Your task to perform on an android device: change alarm snooze length Image 0: 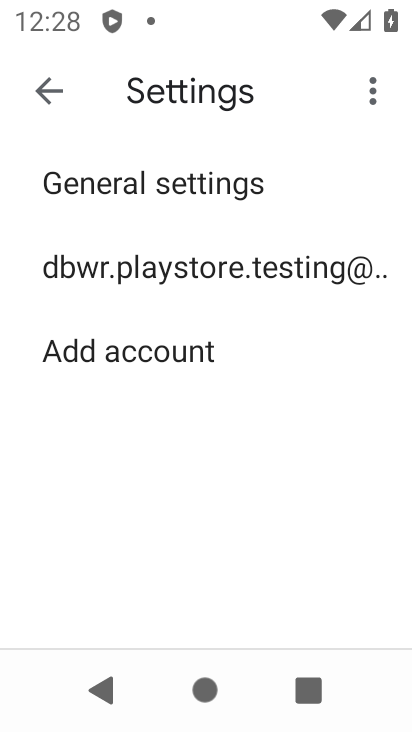
Step 0: press home button
Your task to perform on an android device: change alarm snooze length Image 1: 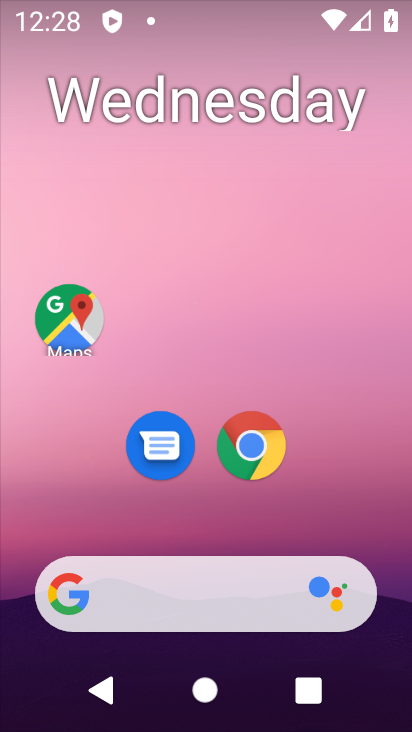
Step 1: drag from (241, 590) to (258, 183)
Your task to perform on an android device: change alarm snooze length Image 2: 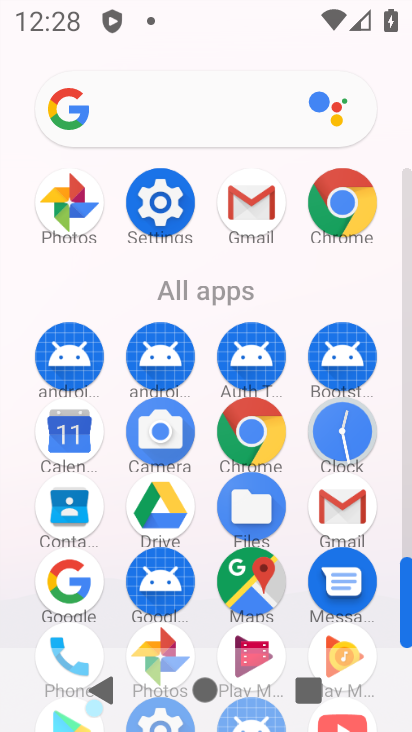
Step 2: click (336, 444)
Your task to perform on an android device: change alarm snooze length Image 3: 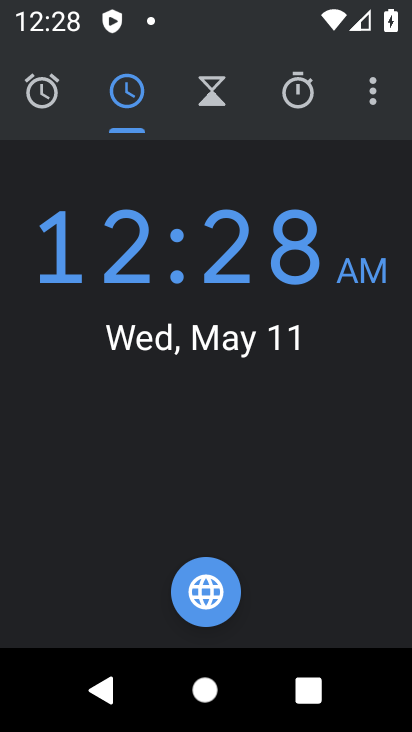
Step 3: click (387, 114)
Your task to perform on an android device: change alarm snooze length Image 4: 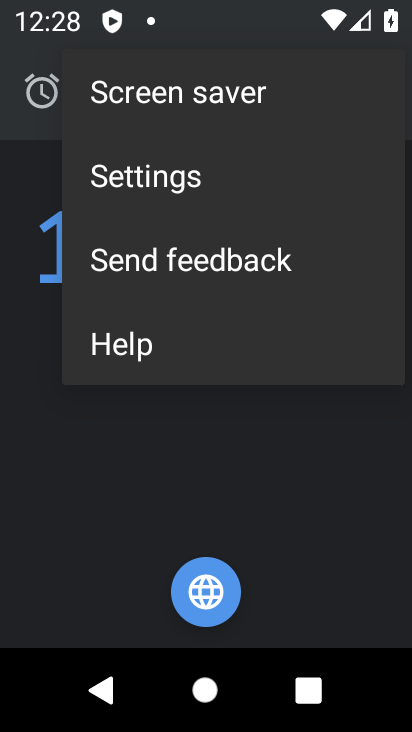
Step 4: click (160, 174)
Your task to perform on an android device: change alarm snooze length Image 5: 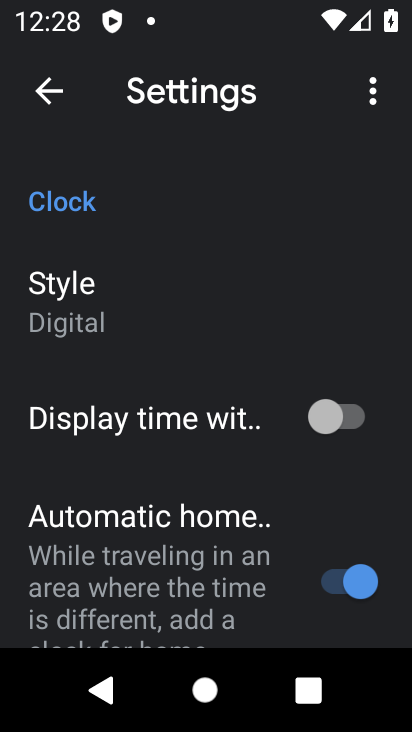
Step 5: drag from (173, 422) to (155, 140)
Your task to perform on an android device: change alarm snooze length Image 6: 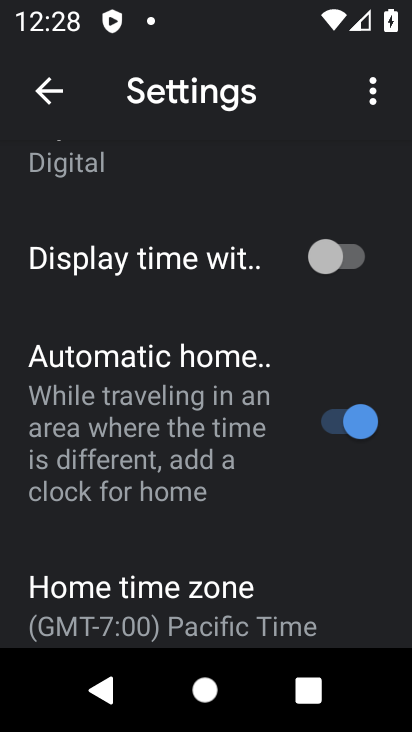
Step 6: drag from (141, 511) to (215, 2)
Your task to perform on an android device: change alarm snooze length Image 7: 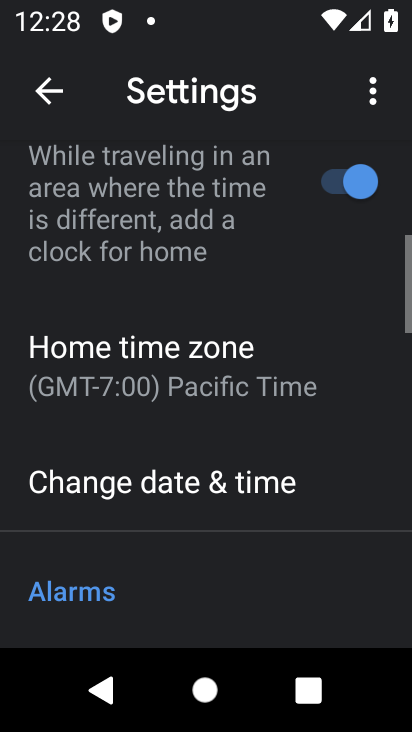
Step 7: drag from (234, 437) to (233, 7)
Your task to perform on an android device: change alarm snooze length Image 8: 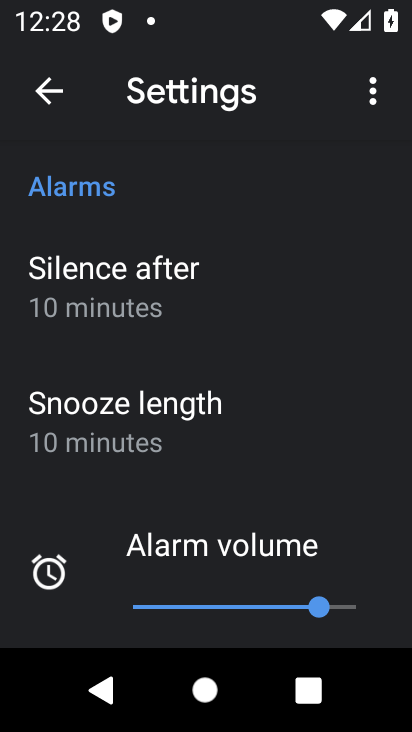
Step 8: click (179, 400)
Your task to perform on an android device: change alarm snooze length Image 9: 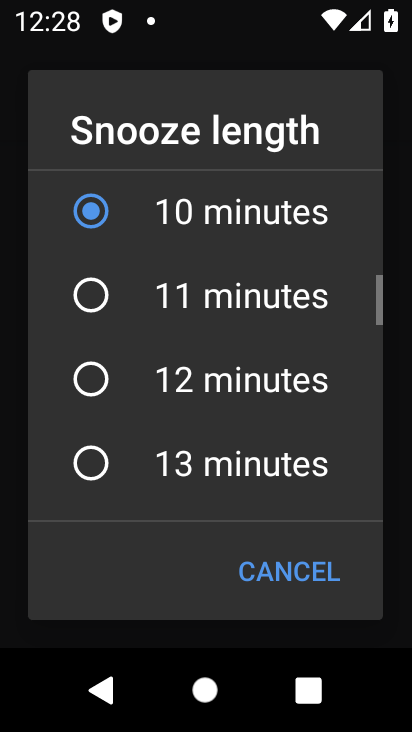
Step 9: click (177, 450)
Your task to perform on an android device: change alarm snooze length Image 10: 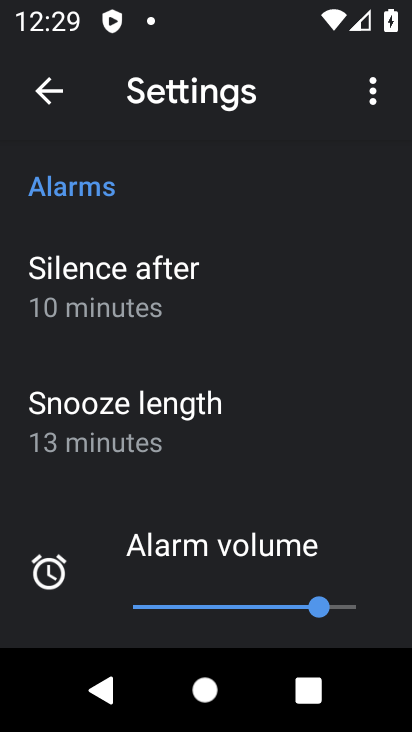
Step 10: task complete